Your task to perform on an android device: turn on airplane mode Image 0: 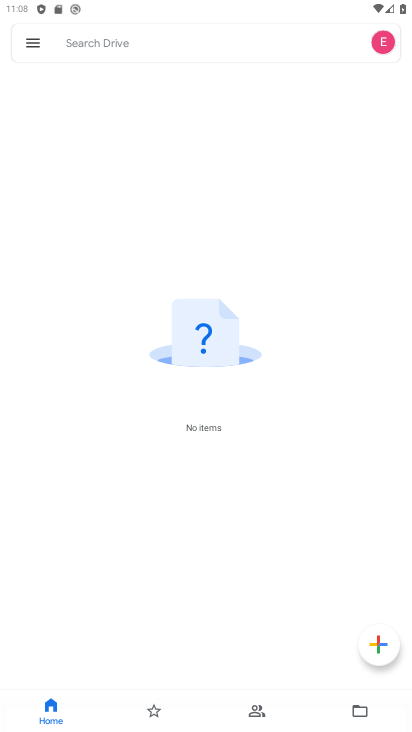
Step 0: press home button
Your task to perform on an android device: turn on airplane mode Image 1: 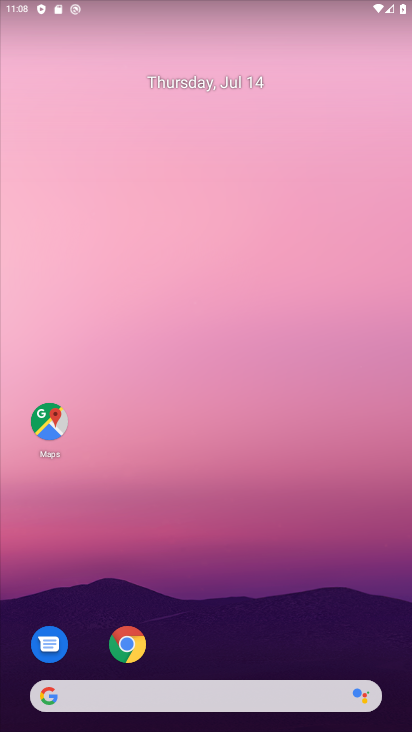
Step 1: drag from (264, 647) to (377, 161)
Your task to perform on an android device: turn on airplane mode Image 2: 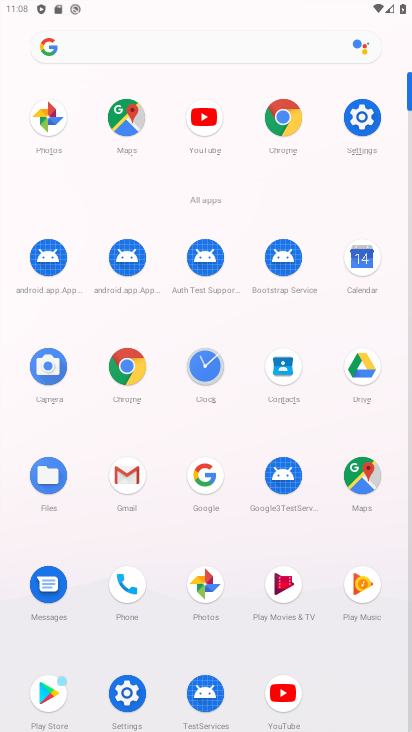
Step 2: click (134, 703)
Your task to perform on an android device: turn on airplane mode Image 3: 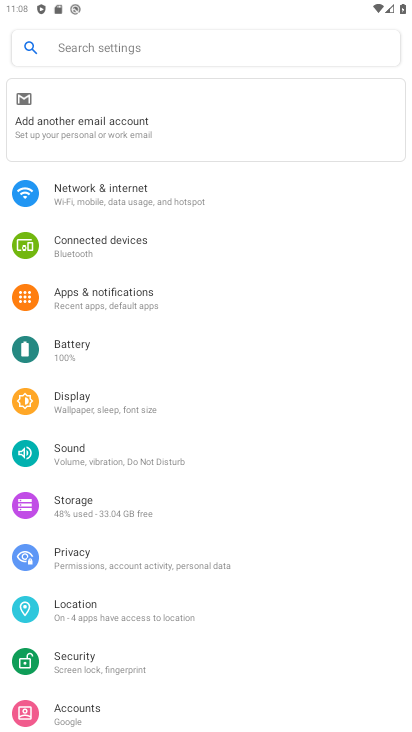
Step 3: click (163, 208)
Your task to perform on an android device: turn on airplane mode Image 4: 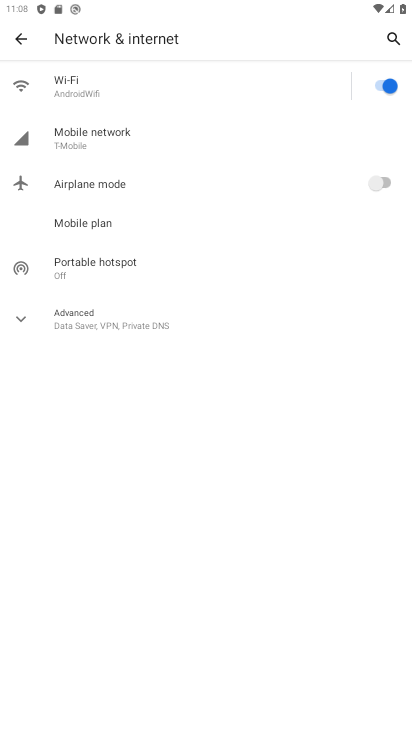
Step 4: click (392, 179)
Your task to perform on an android device: turn on airplane mode Image 5: 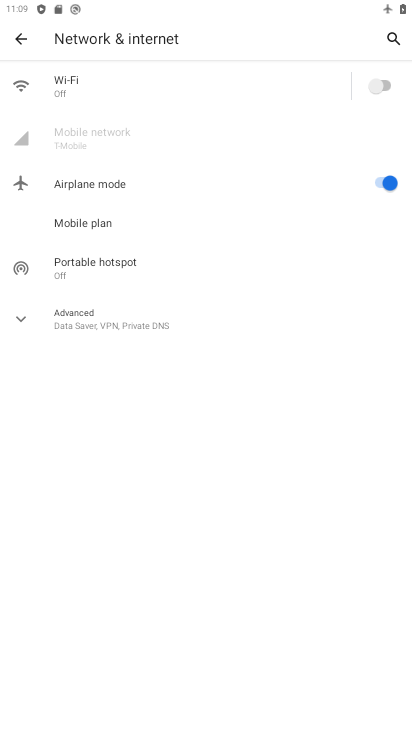
Step 5: task complete